Your task to perform on an android device: Open the contacts Image 0: 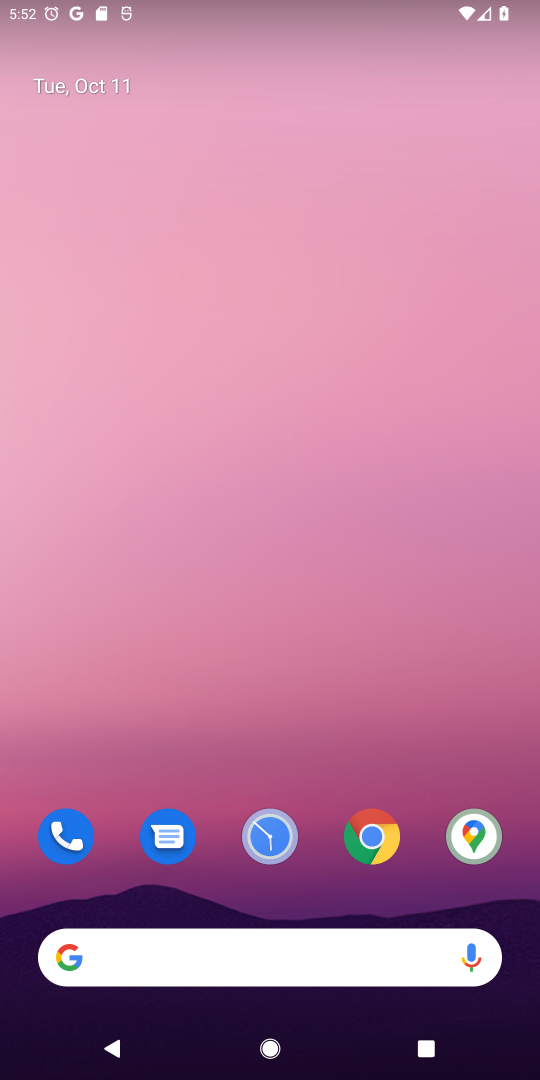
Step 0: drag from (212, 893) to (182, 228)
Your task to perform on an android device: Open the contacts Image 1: 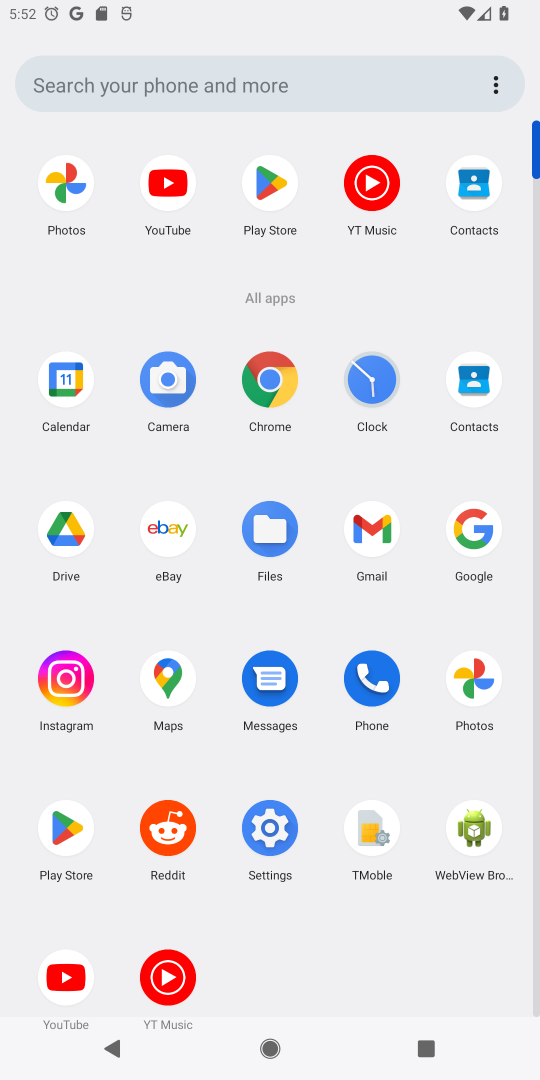
Step 1: click (506, 229)
Your task to perform on an android device: Open the contacts Image 2: 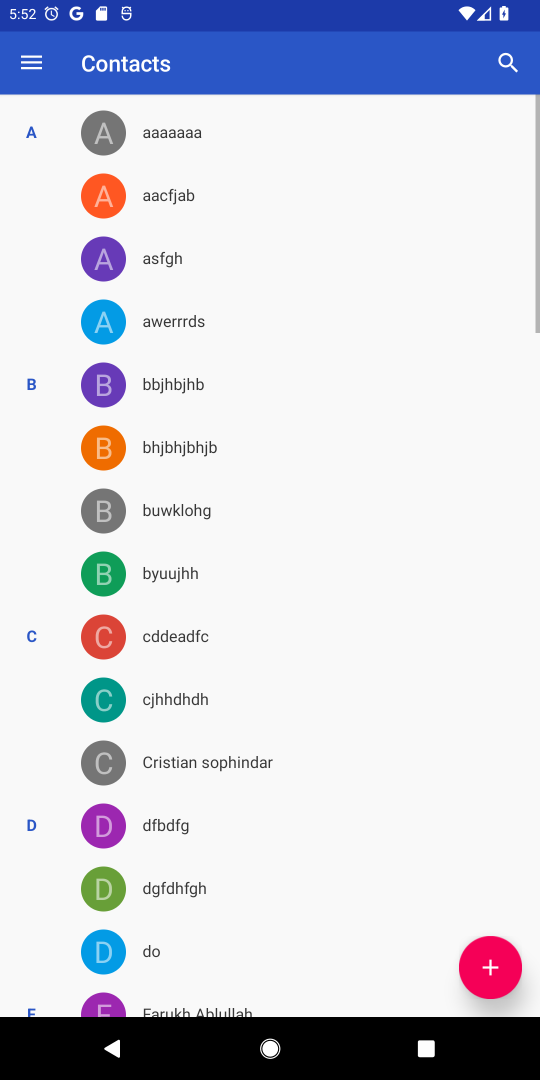
Step 2: task complete